Your task to perform on an android device: What's the weather going to be tomorrow? Image 0: 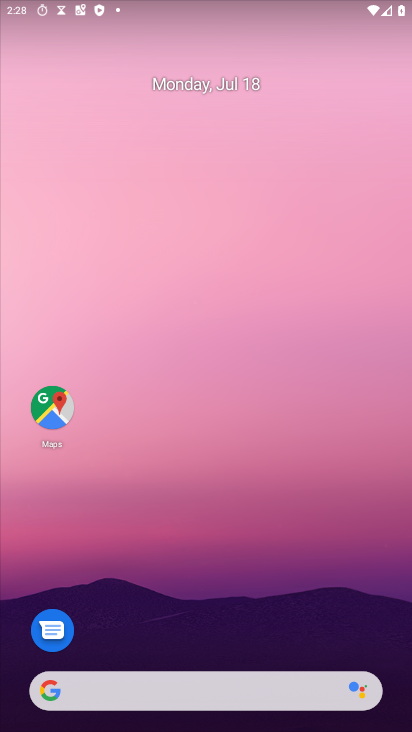
Step 0: drag from (243, 662) to (251, 95)
Your task to perform on an android device: What's the weather going to be tomorrow? Image 1: 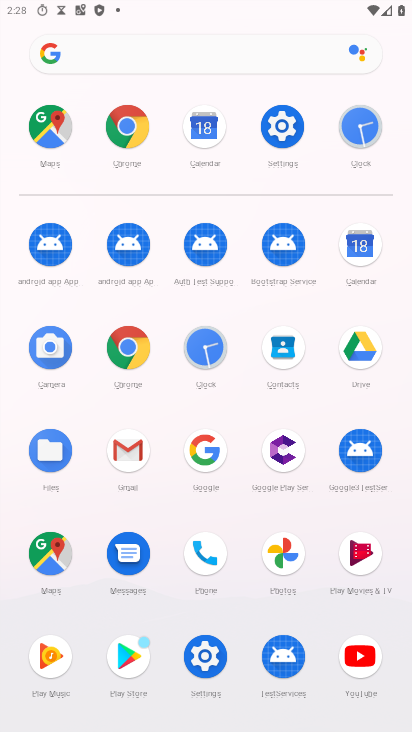
Step 1: click (125, 358)
Your task to perform on an android device: What's the weather going to be tomorrow? Image 2: 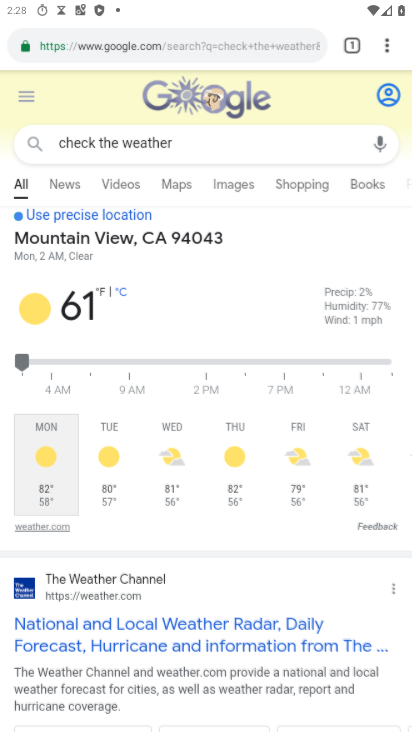
Step 2: click (189, 47)
Your task to perform on an android device: What's the weather going to be tomorrow? Image 3: 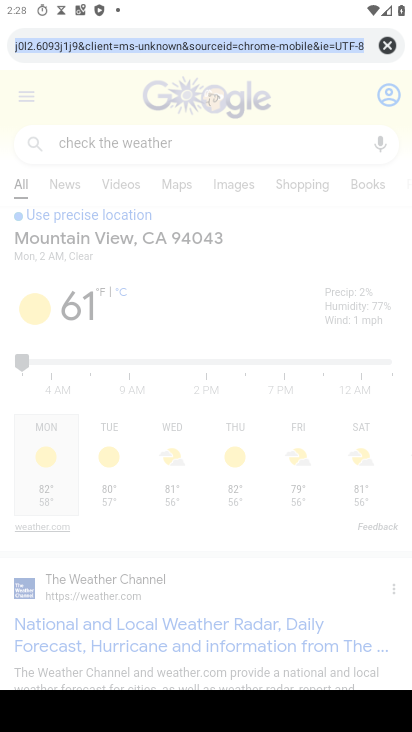
Step 3: type "weather going to be tomorrow"
Your task to perform on an android device: What's the weather going to be tomorrow? Image 4: 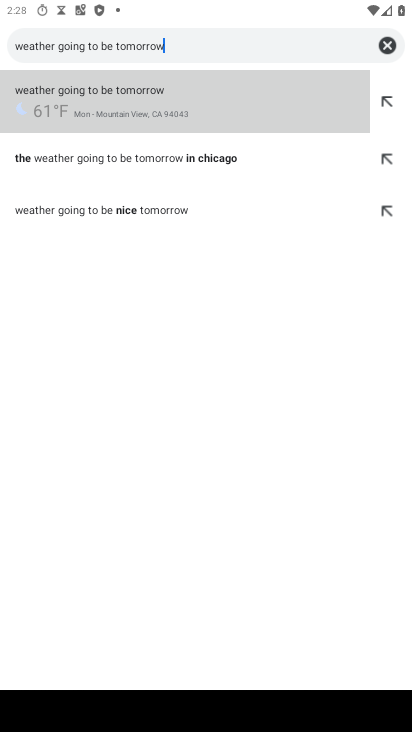
Step 4: click (194, 92)
Your task to perform on an android device: What's the weather going to be tomorrow? Image 5: 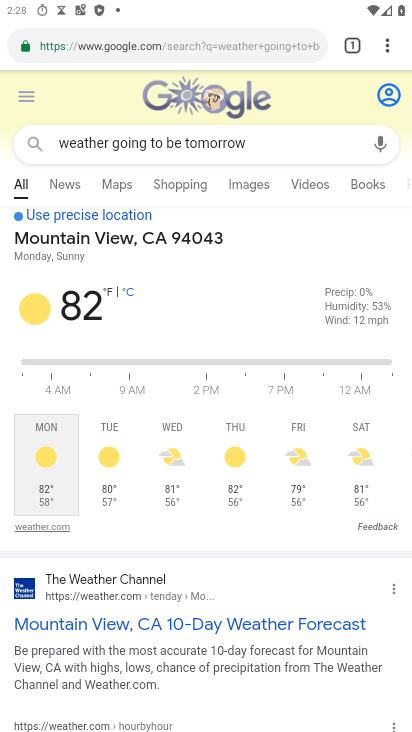
Step 5: task complete